Your task to perform on an android device: install app "Microsoft Outlook" Image 0: 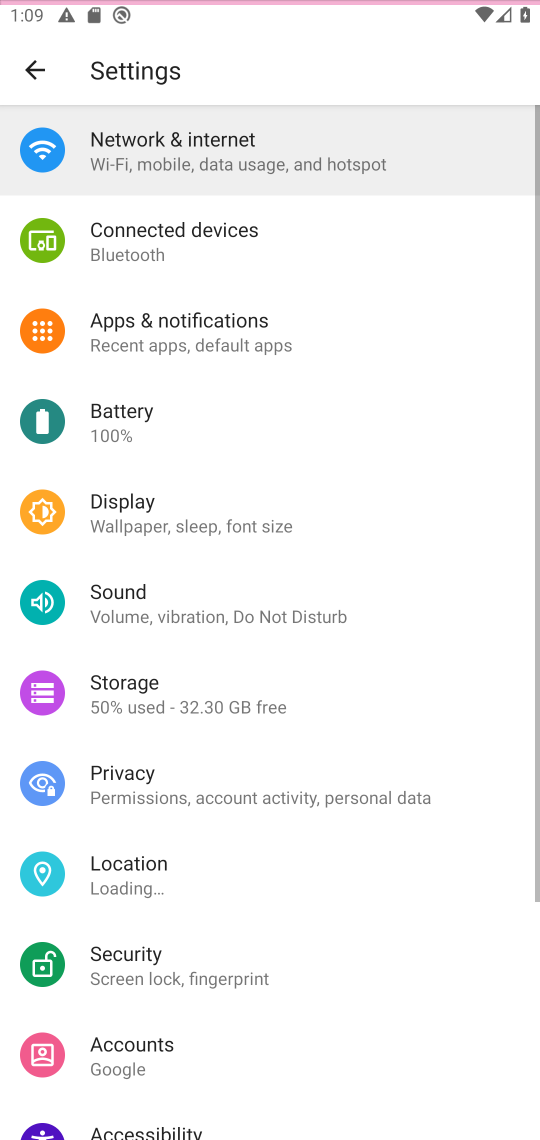
Step 0: press home button
Your task to perform on an android device: install app "Microsoft Outlook" Image 1: 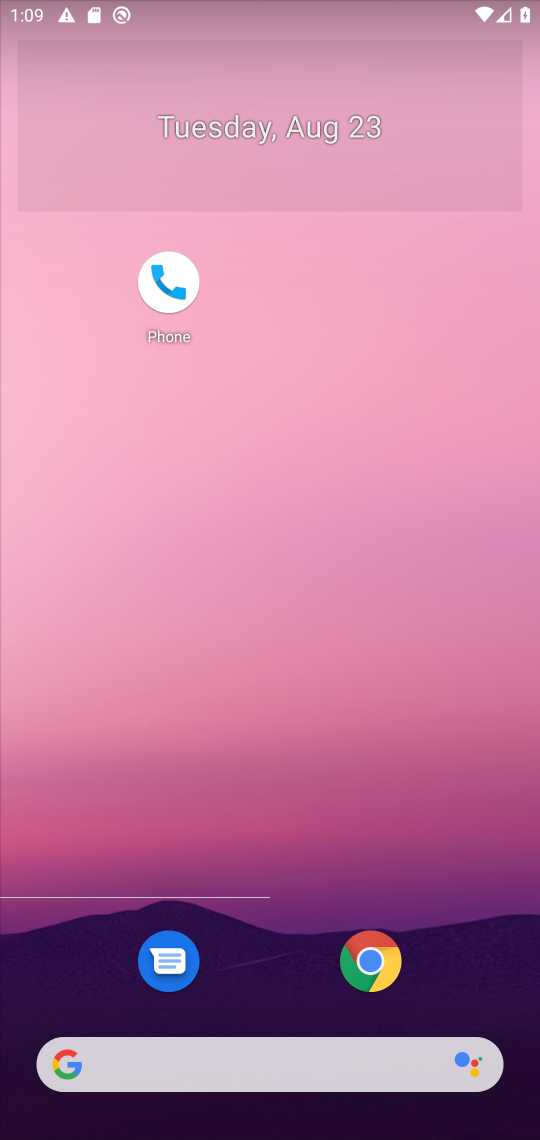
Step 1: drag from (307, 984) to (360, 324)
Your task to perform on an android device: install app "Microsoft Outlook" Image 2: 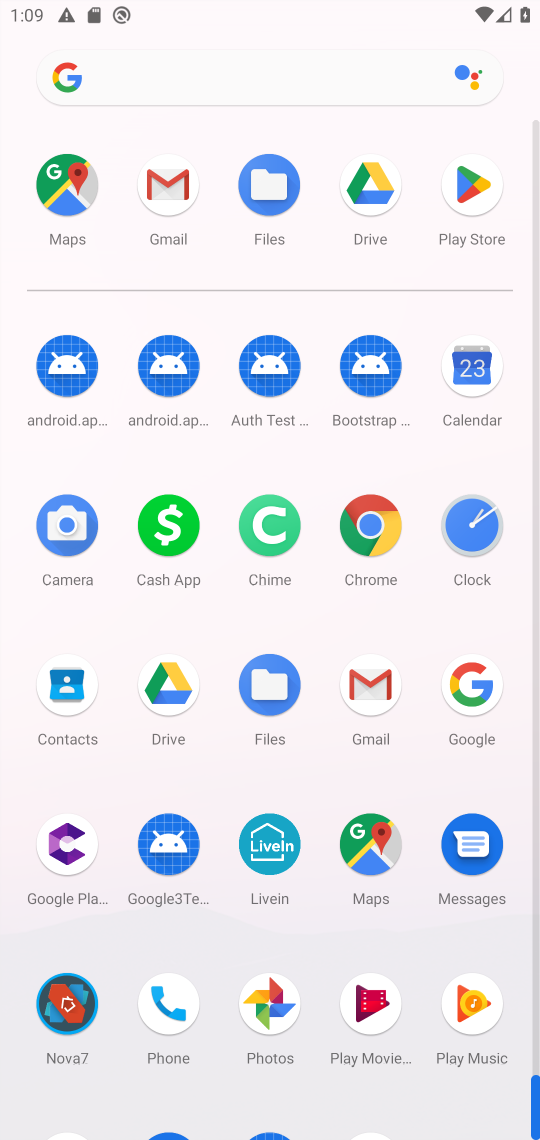
Step 2: click (420, 226)
Your task to perform on an android device: install app "Microsoft Outlook" Image 3: 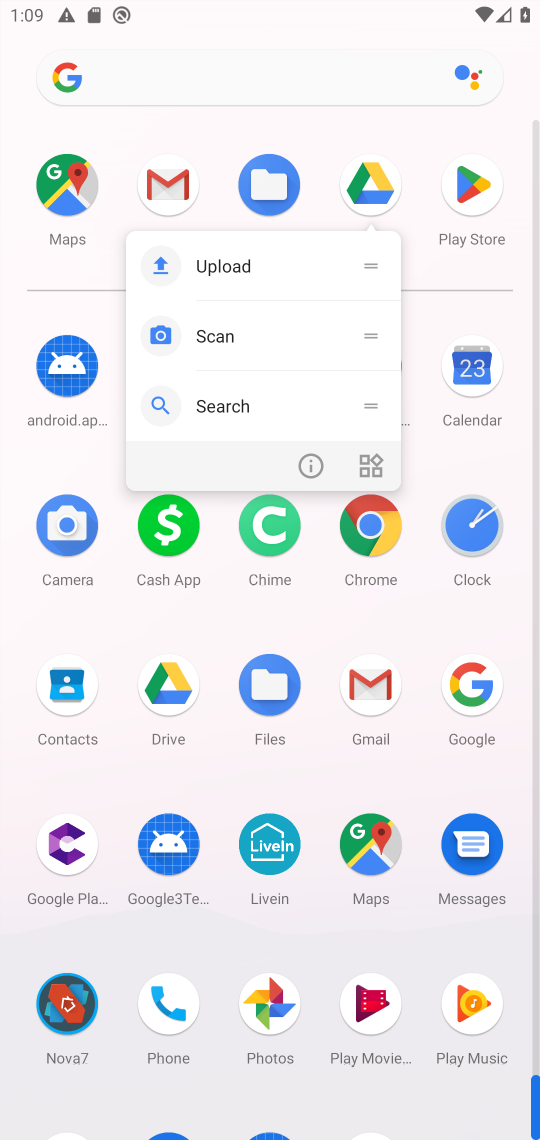
Step 3: click (438, 216)
Your task to perform on an android device: install app "Microsoft Outlook" Image 4: 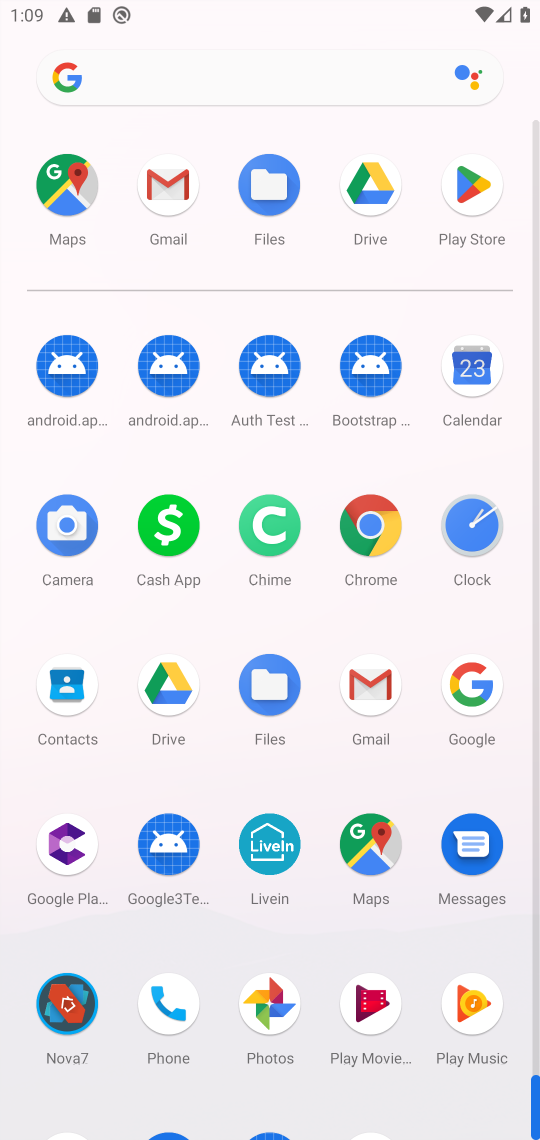
Step 4: click (458, 192)
Your task to perform on an android device: install app "Microsoft Outlook" Image 5: 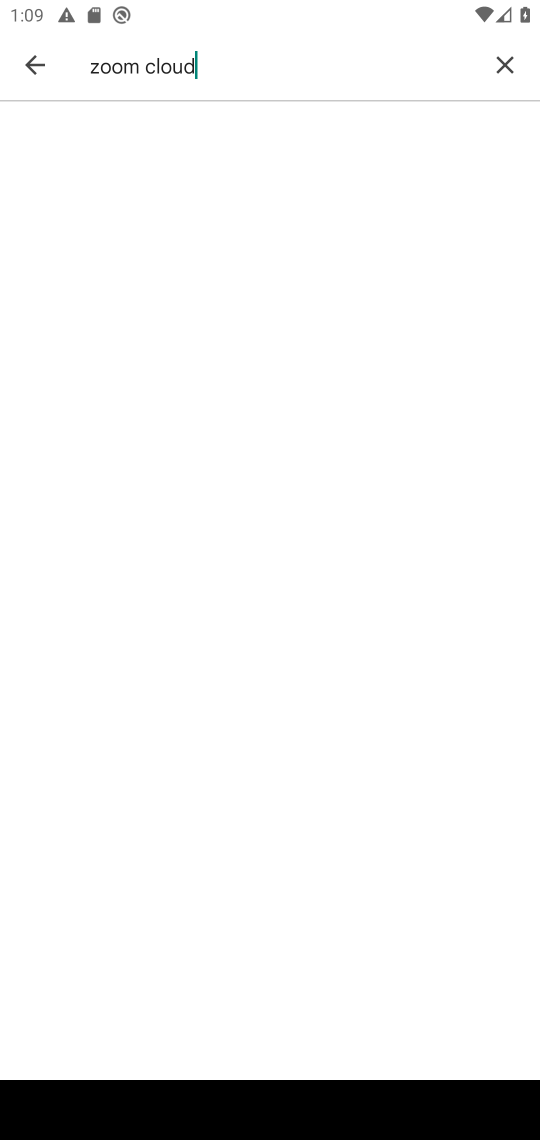
Step 5: click (497, 71)
Your task to perform on an android device: install app "Microsoft Outlook" Image 6: 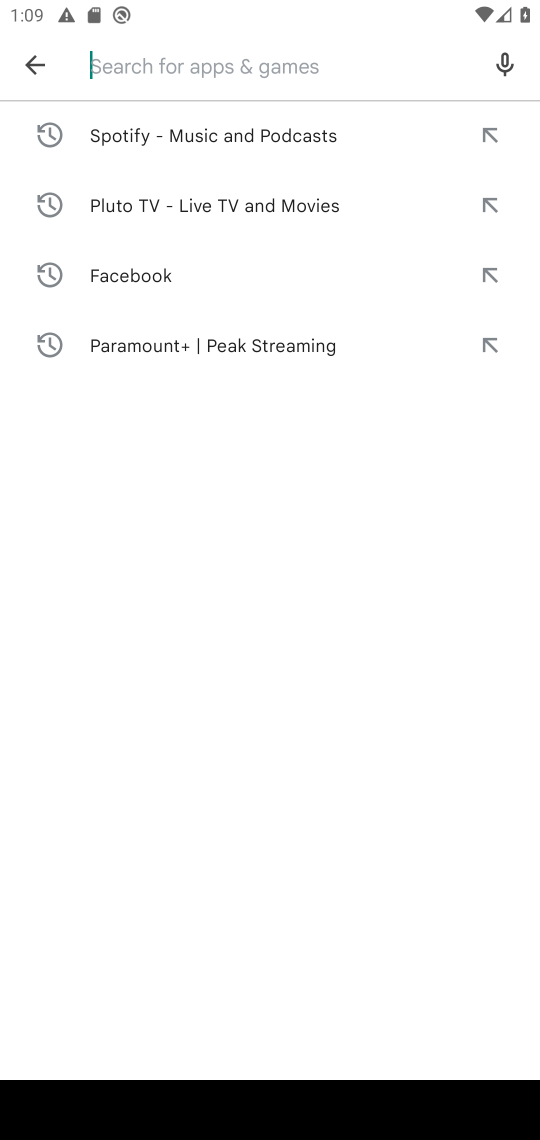
Step 6: type "microsoft outlook"
Your task to perform on an android device: install app "Microsoft Outlook" Image 7: 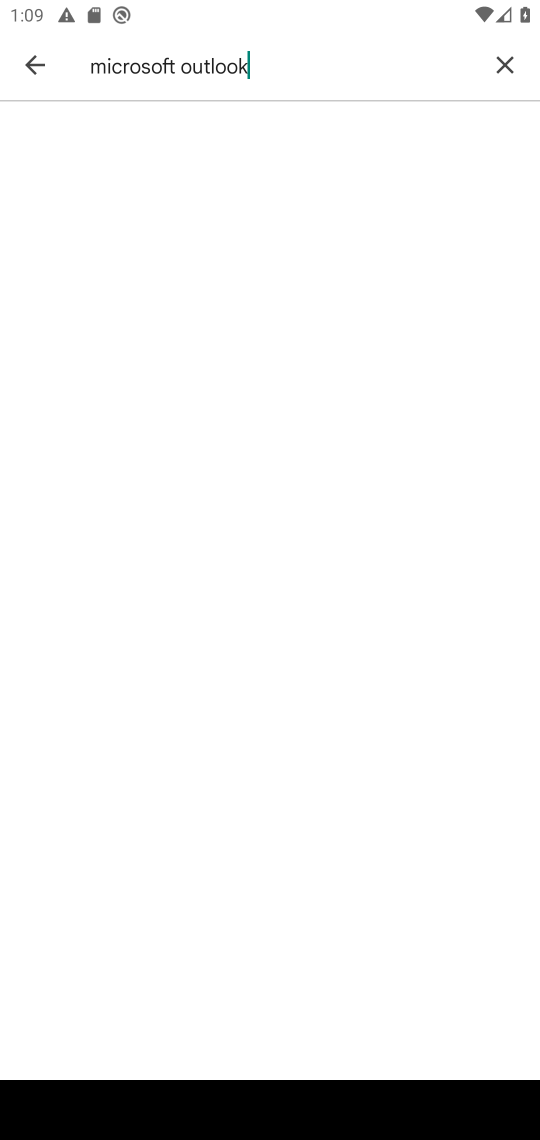
Step 7: task complete